Your task to perform on an android device: Open my contact list Image 0: 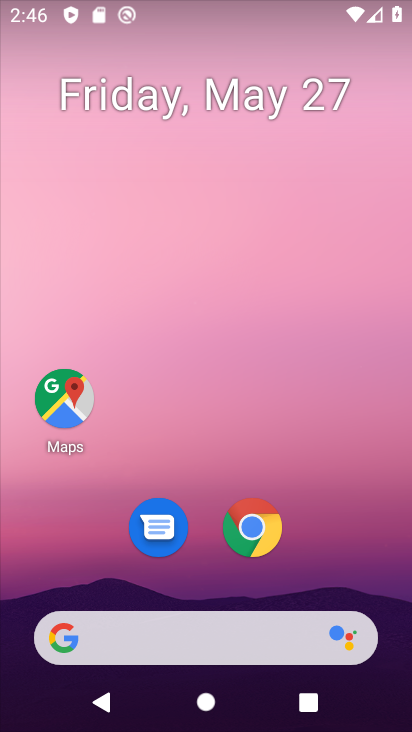
Step 0: drag from (272, 684) to (164, 98)
Your task to perform on an android device: Open my contact list Image 1: 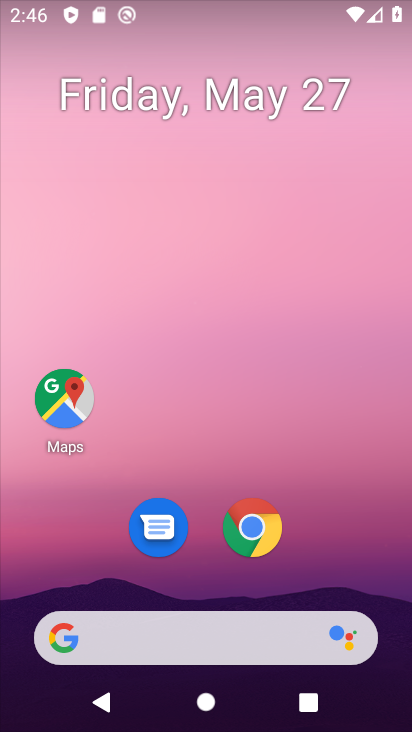
Step 1: drag from (173, 511) to (178, 205)
Your task to perform on an android device: Open my contact list Image 2: 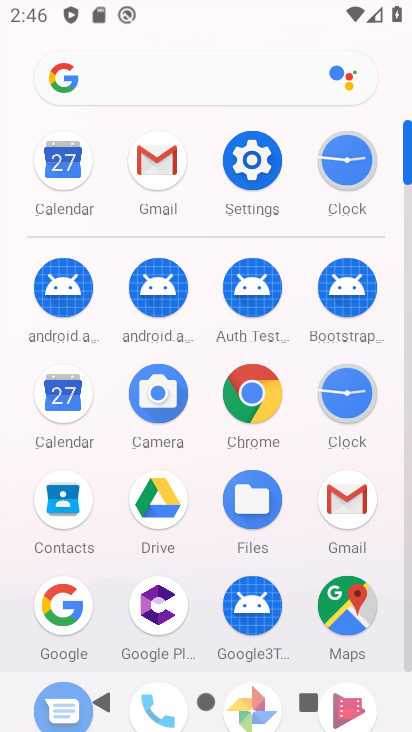
Step 2: click (81, 503)
Your task to perform on an android device: Open my contact list Image 3: 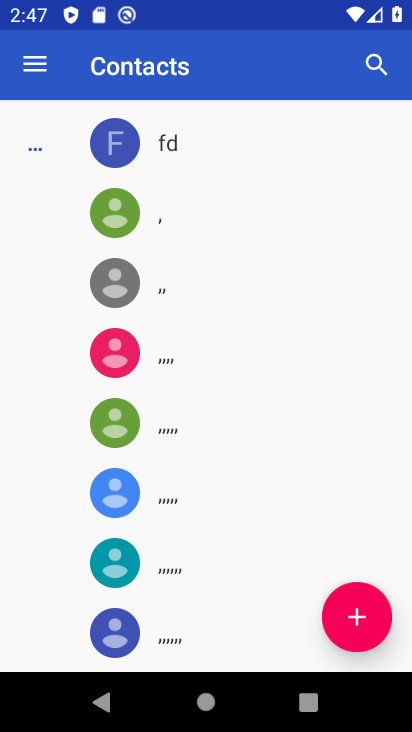
Step 3: task complete